Your task to perform on an android device: allow cookies in the chrome app Image 0: 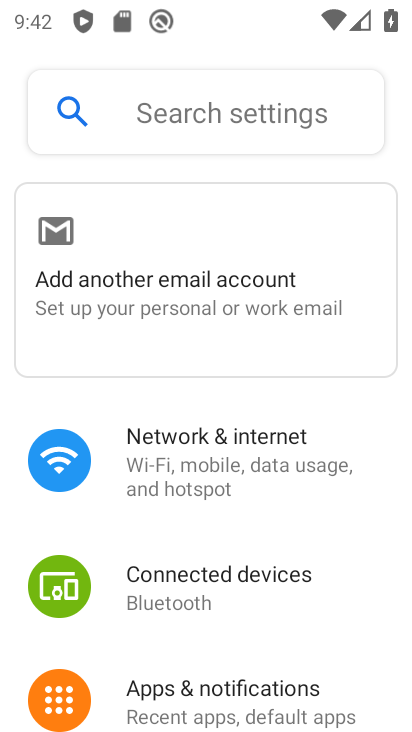
Step 0: drag from (227, 613) to (292, 326)
Your task to perform on an android device: allow cookies in the chrome app Image 1: 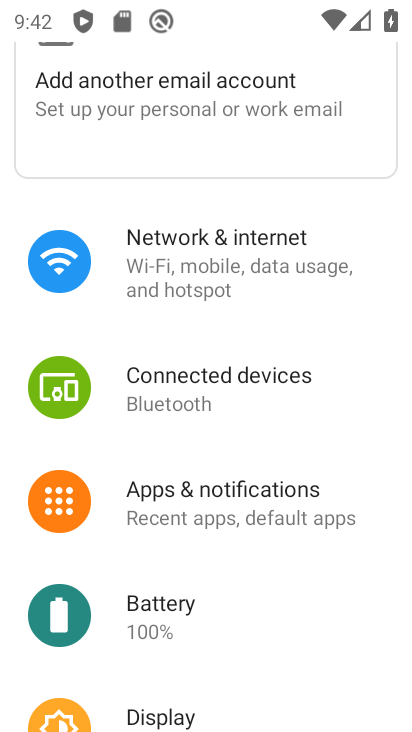
Step 1: drag from (239, 461) to (291, 202)
Your task to perform on an android device: allow cookies in the chrome app Image 2: 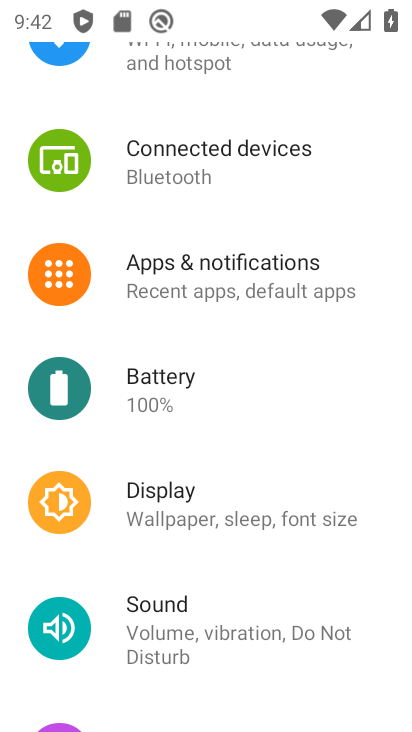
Step 2: press home button
Your task to perform on an android device: allow cookies in the chrome app Image 3: 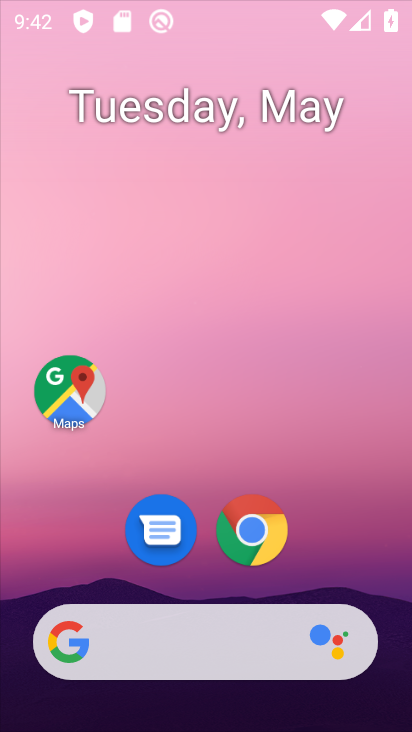
Step 3: drag from (222, 613) to (273, 89)
Your task to perform on an android device: allow cookies in the chrome app Image 4: 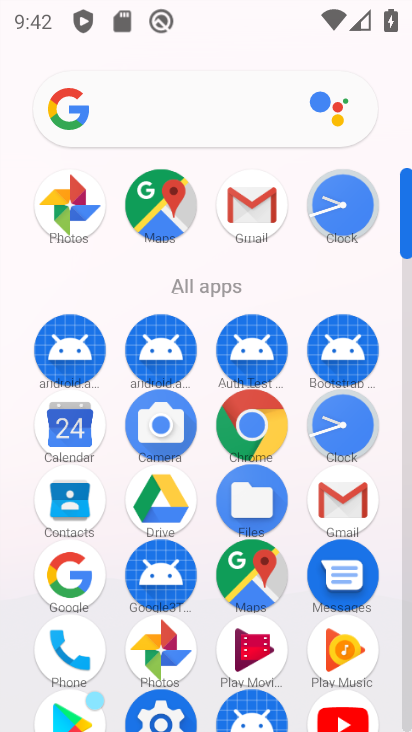
Step 4: click (250, 416)
Your task to perform on an android device: allow cookies in the chrome app Image 5: 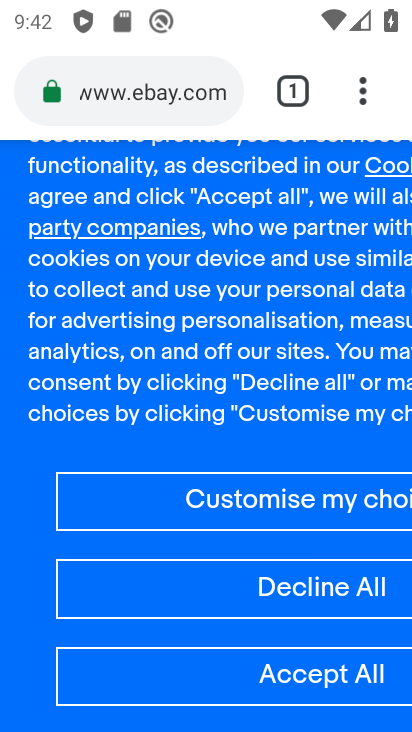
Step 5: drag from (245, 247) to (294, 598)
Your task to perform on an android device: allow cookies in the chrome app Image 6: 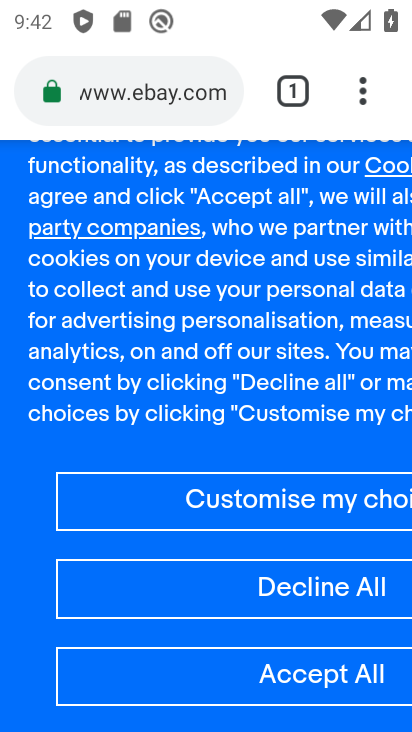
Step 6: drag from (281, 327) to (278, 710)
Your task to perform on an android device: allow cookies in the chrome app Image 7: 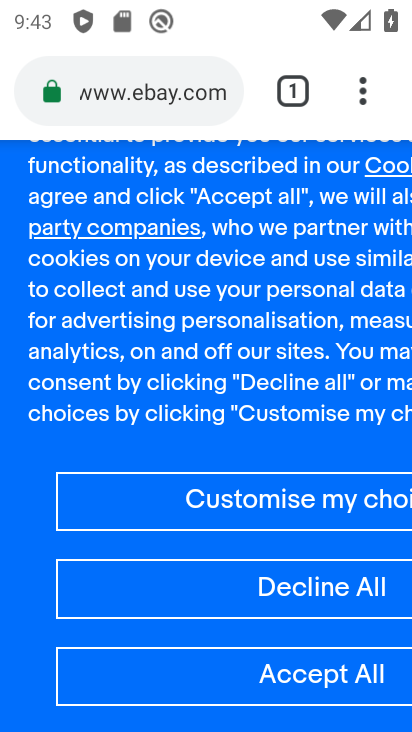
Step 7: drag from (293, 204) to (326, 696)
Your task to perform on an android device: allow cookies in the chrome app Image 8: 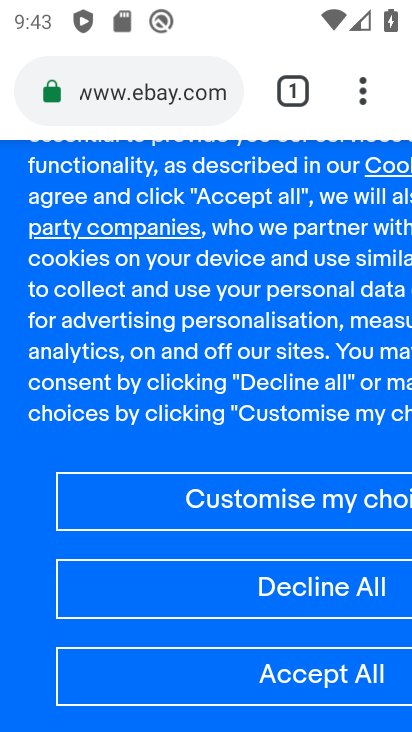
Step 8: click (364, 77)
Your task to perform on an android device: allow cookies in the chrome app Image 9: 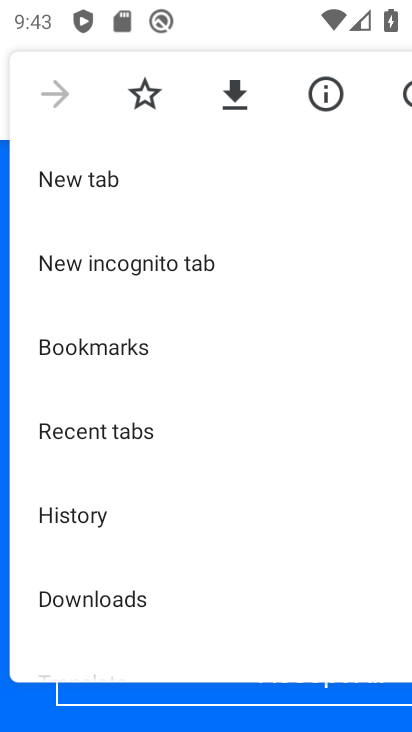
Step 9: drag from (164, 596) to (222, 230)
Your task to perform on an android device: allow cookies in the chrome app Image 10: 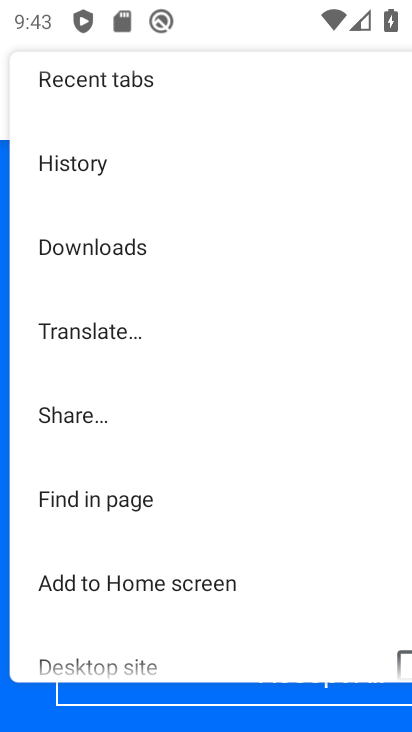
Step 10: drag from (164, 588) to (306, 113)
Your task to perform on an android device: allow cookies in the chrome app Image 11: 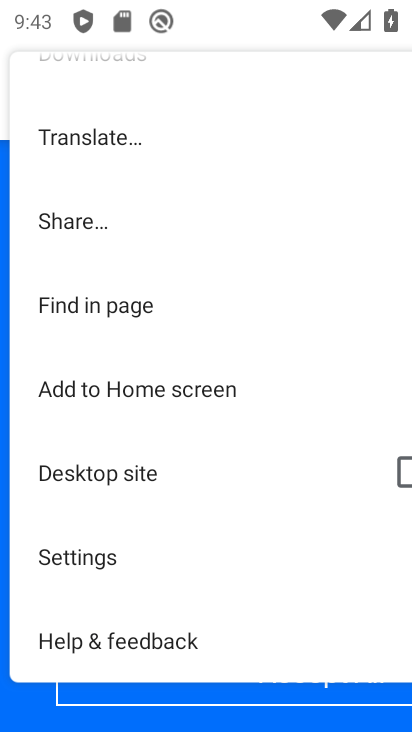
Step 11: click (158, 552)
Your task to perform on an android device: allow cookies in the chrome app Image 12: 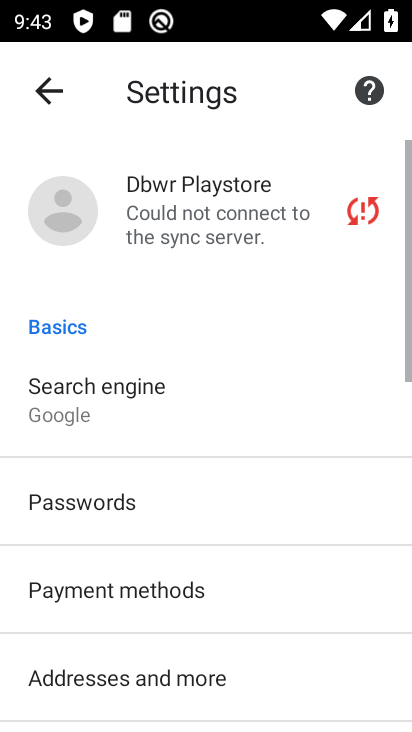
Step 12: drag from (269, 548) to (329, 141)
Your task to perform on an android device: allow cookies in the chrome app Image 13: 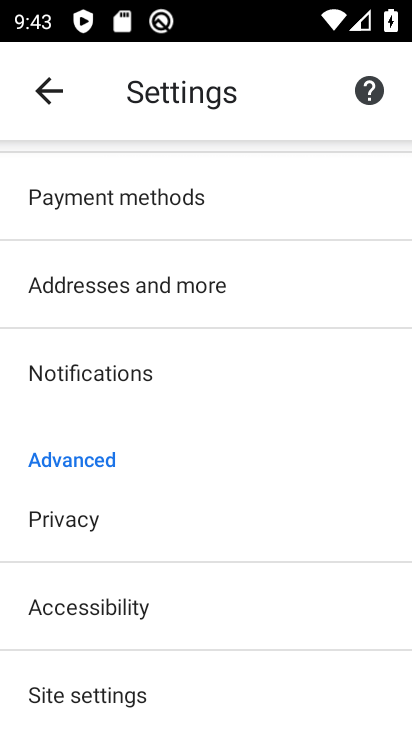
Step 13: drag from (241, 561) to (288, 198)
Your task to perform on an android device: allow cookies in the chrome app Image 14: 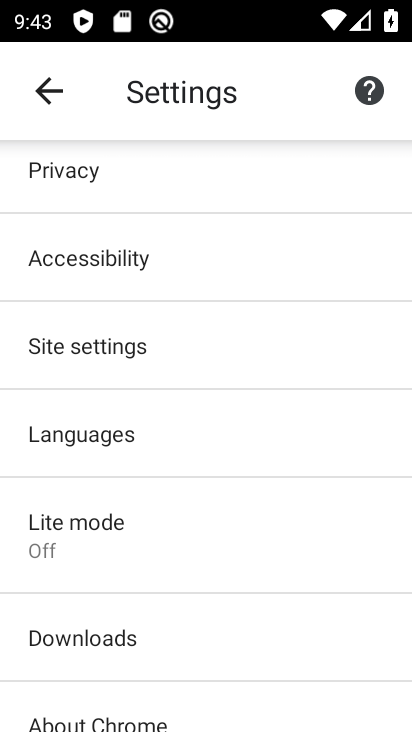
Step 14: drag from (173, 610) to (215, 351)
Your task to perform on an android device: allow cookies in the chrome app Image 15: 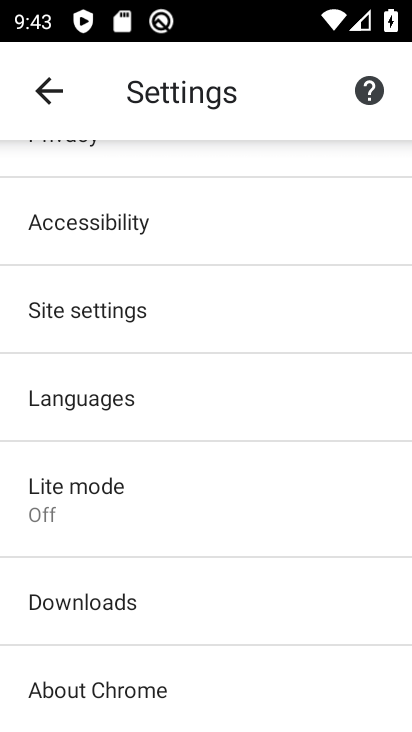
Step 15: click (196, 304)
Your task to perform on an android device: allow cookies in the chrome app Image 16: 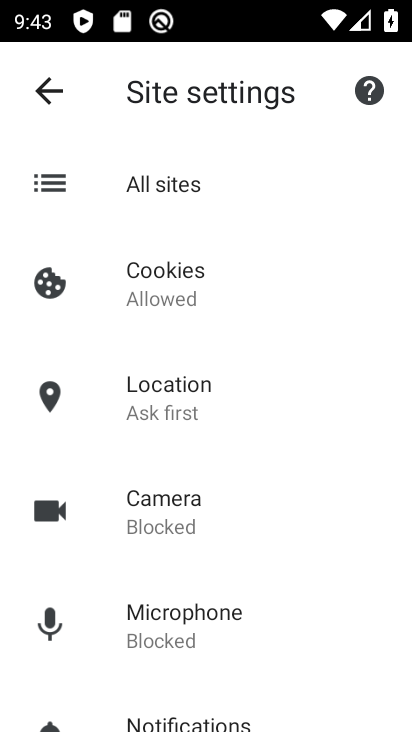
Step 16: click (235, 276)
Your task to perform on an android device: allow cookies in the chrome app Image 17: 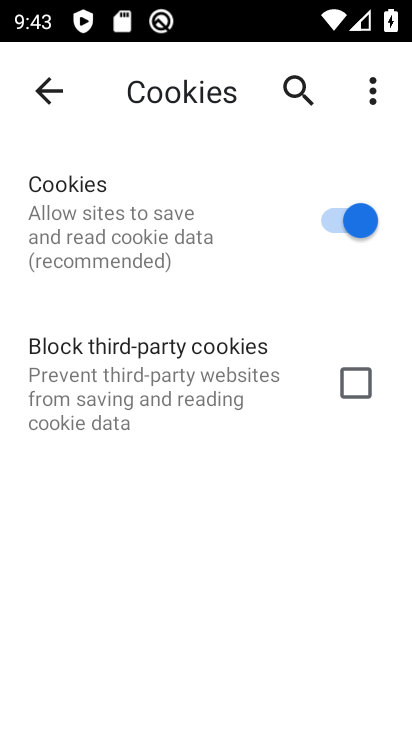
Step 17: task complete